Your task to perform on an android device: Toggle the flashlight Image 0: 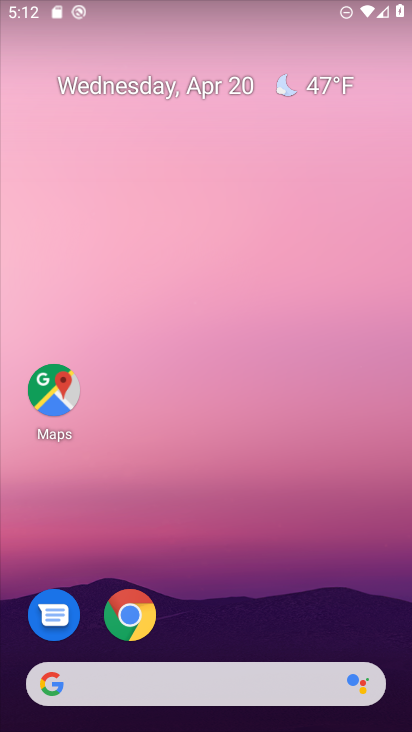
Step 0: drag from (256, 618) to (225, 83)
Your task to perform on an android device: Toggle the flashlight Image 1: 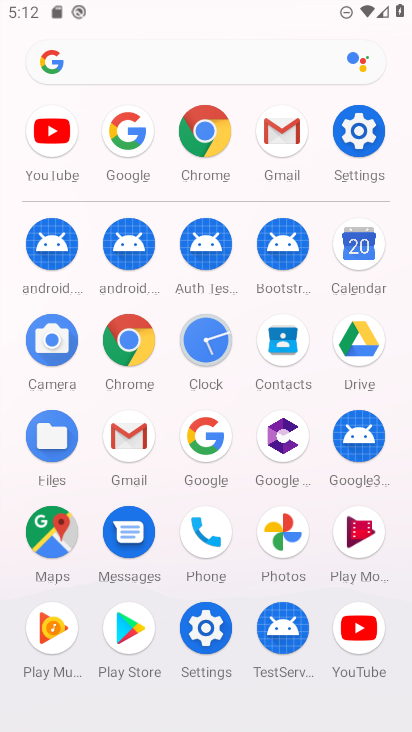
Step 1: click (360, 135)
Your task to perform on an android device: Toggle the flashlight Image 2: 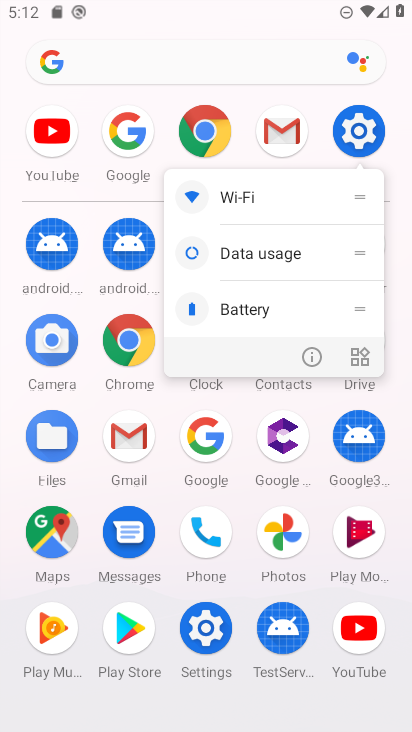
Step 2: click (358, 138)
Your task to perform on an android device: Toggle the flashlight Image 3: 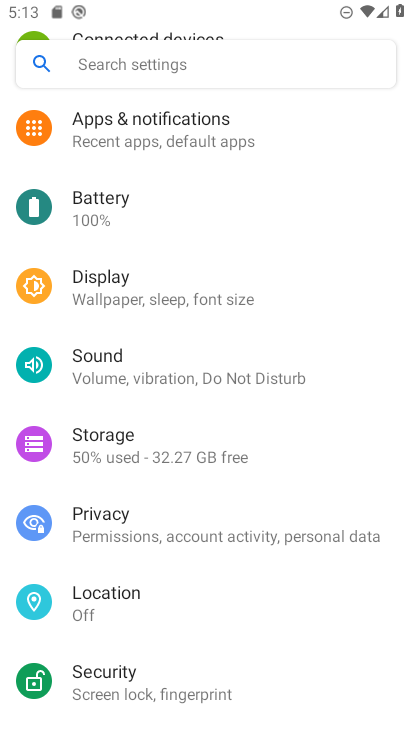
Step 3: drag from (265, 616) to (265, 270)
Your task to perform on an android device: Toggle the flashlight Image 4: 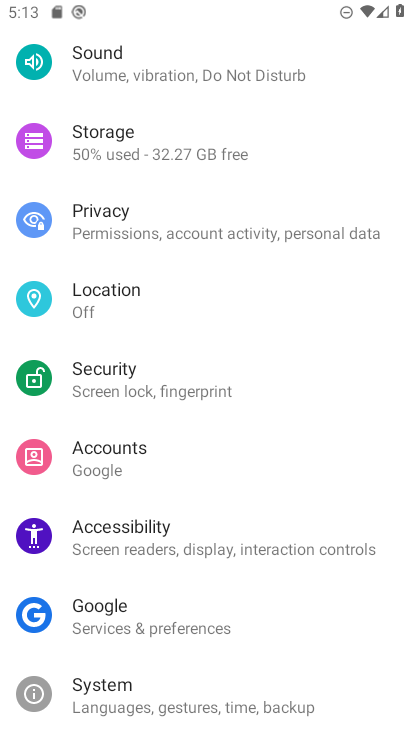
Step 4: click (146, 548)
Your task to perform on an android device: Toggle the flashlight Image 5: 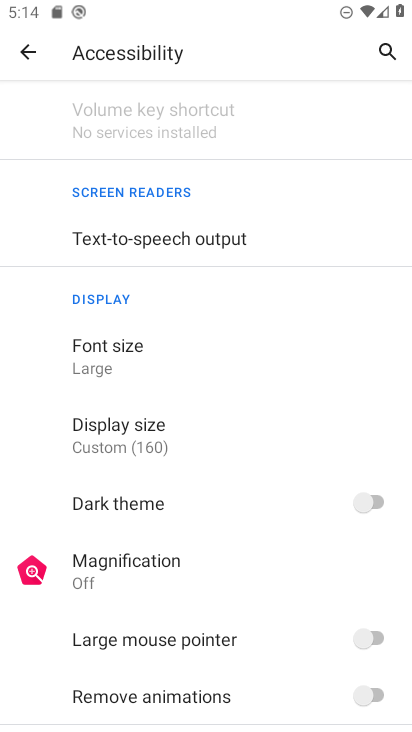
Step 5: task complete